Your task to perform on an android device: Open Amazon Image 0: 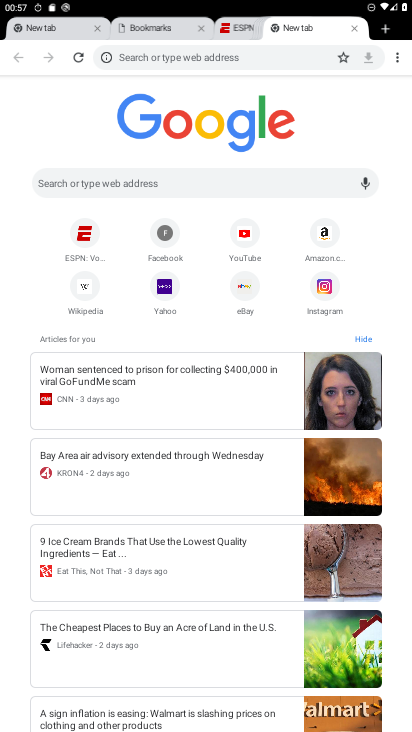
Step 0: press home button
Your task to perform on an android device: Open Amazon Image 1: 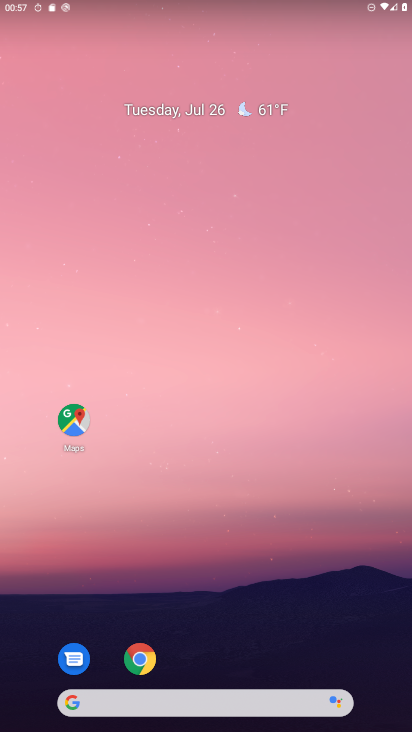
Step 1: click (161, 695)
Your task to perform on an android device: Open Amazon Image 2: 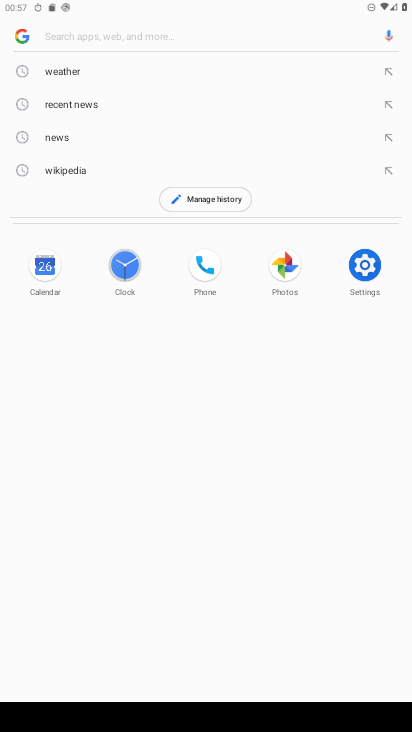
Step 2: type "Amazon"
Your task to perform on an android device: Open Amazon Image 3: 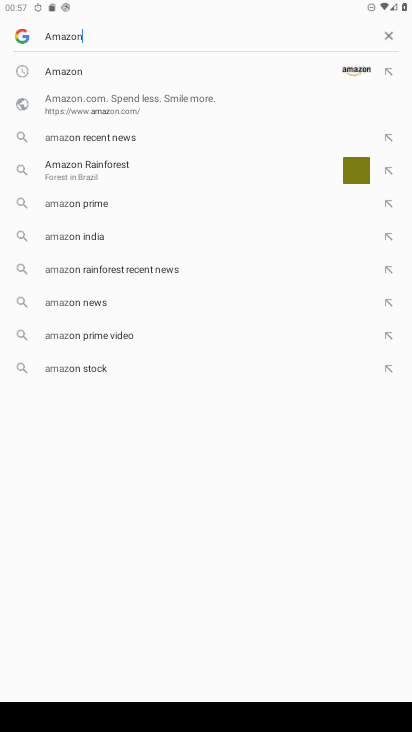
Step 3: type ""
Your task to perform on an android device: Open Amazon Image 4: 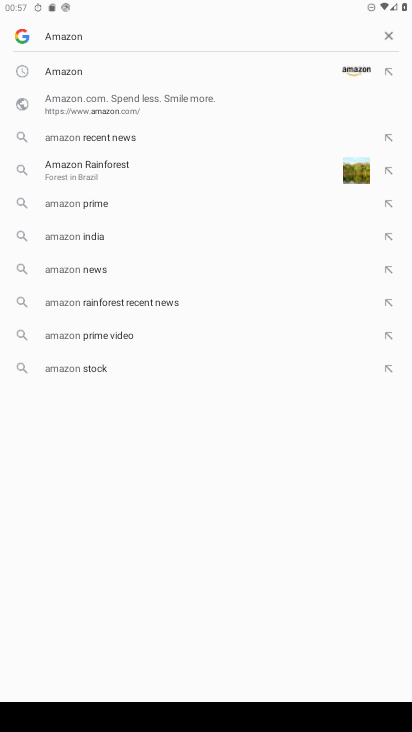
Step 4: click (80, 74)
Your task to perform on an android device: Open Amazon Image 5: 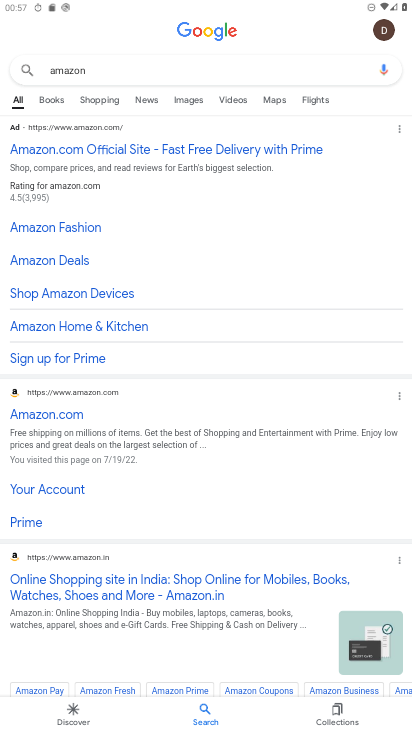
Step 5: task complete